Your task to perform on an android device: see creations saved in the google photos Image 0: 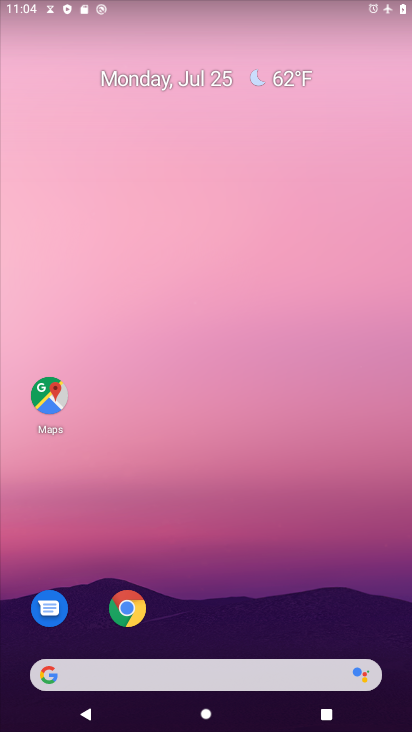
Step 0: drag from (228, 666) to (404, 508)
Your task to perform on an android device: see creations saved in the google photos Image 1: 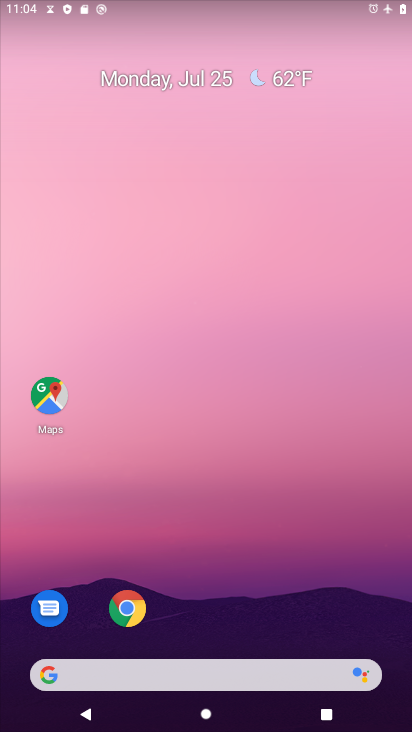
Step 1: drag from (190, 673) to (321, 64)
Your task to perform on an android device: see creations saved in the google photos Image 2: 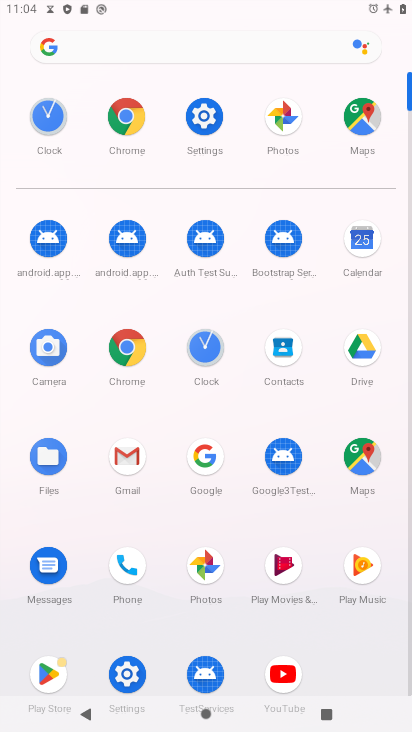
Step 2: click (282, 116)
Your task to perform on an android device: see creations saved in the google photos Image 3: 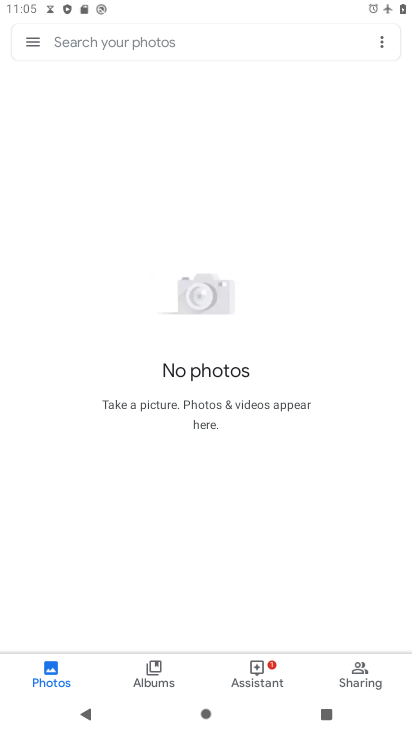
Step 3: click (161, 673)
Your task to perform on an android device: see creations saved in the google photos Image 4: 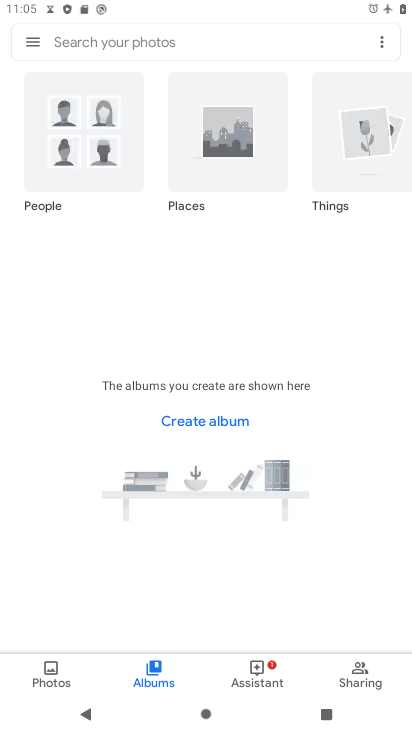
Step 4: click (50, 663)
Your task to perform on an android device: see creations saved in the google photos Image 5: 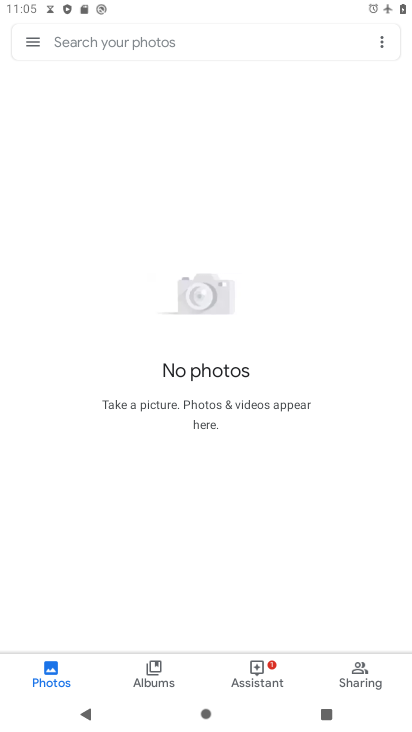
Step 5: click (251, 26)
Your task to perform on an android device: see creations saved in the google photos Image 6: 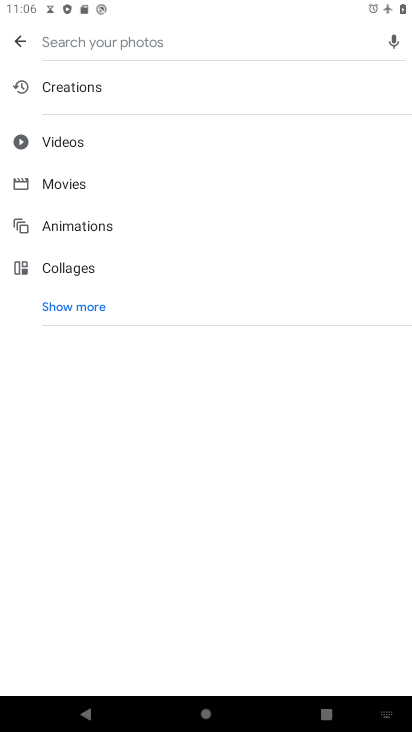
Step 6: click (57, 302)
Your task to perform on an android device: see creations saved in the google photos Image 7: 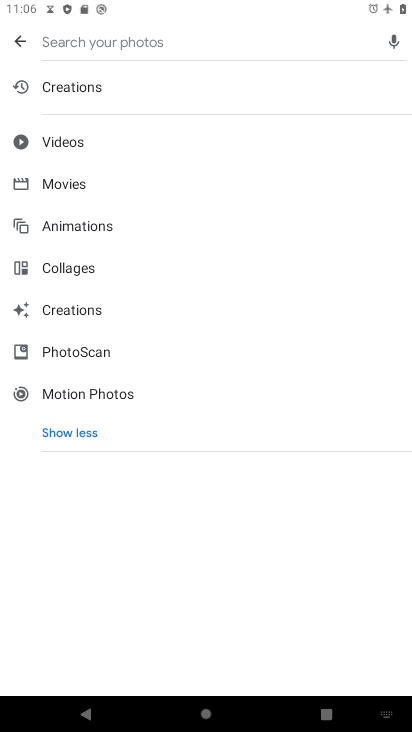
Step 7: click (79, 309)
Your task to perform on an android device: see creations saved in the google photos Image 8: 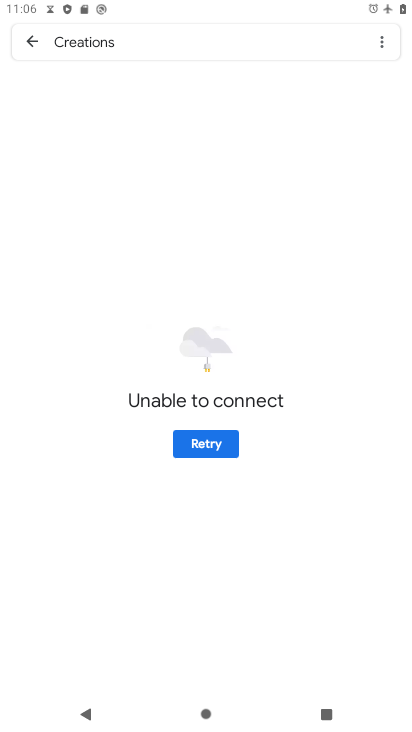
Step 8: task complete